Your task to perform on an android device: toggle pop-ups in chrome Image 0: 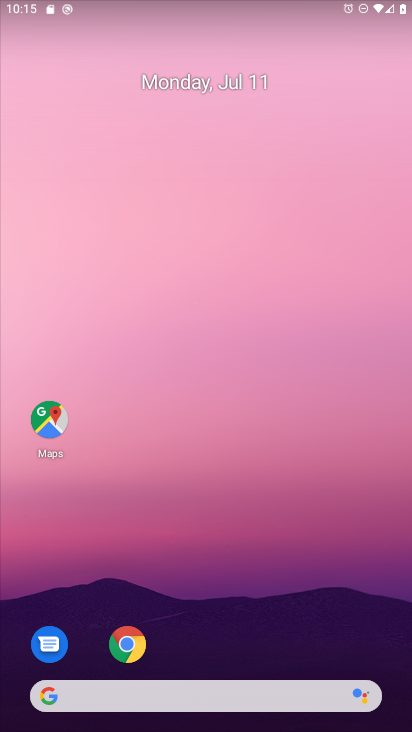
Step 0: click (127, 650)
Your task to perform on an android device: toggle pop-ups in chrome Image 1: 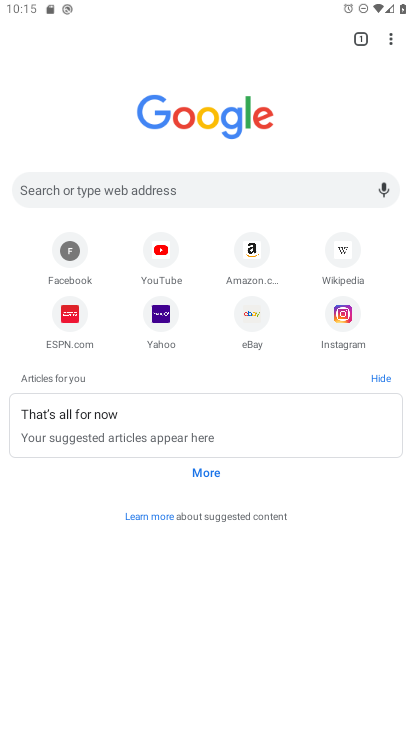
Step 1: click (388, 36)
Your task to perform on an android device: toggle pop-ups in chrome Image 2: 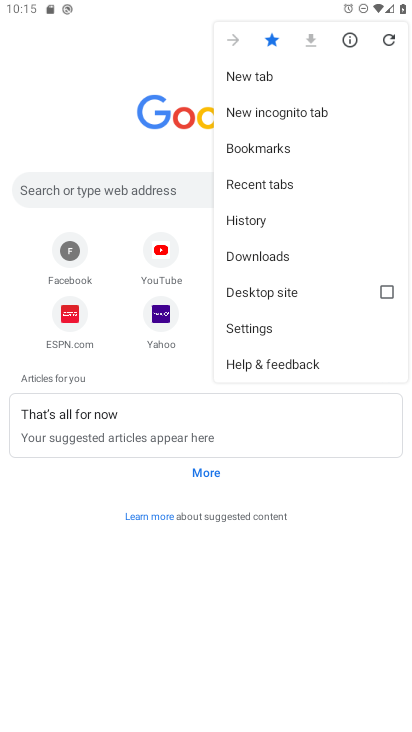
Step 2: click (274, 324)
Your task to perform on an android device: toggle pop-ups in chrome Image 3: 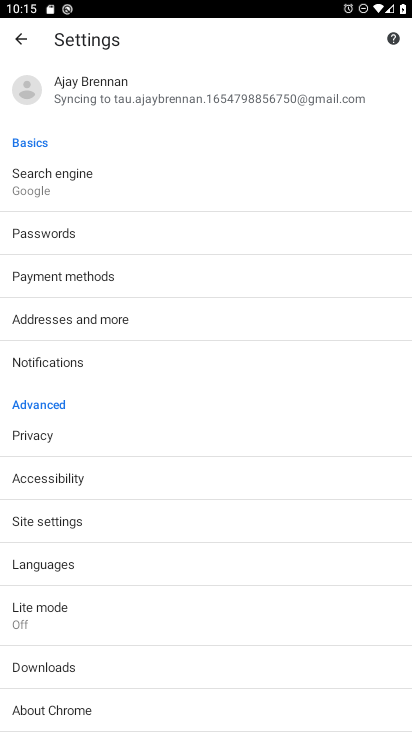
Step 3: drag from (112, 702) to (104, 351)
Your task to perform on an android device: toggle pop-ups in chrome Image 4: 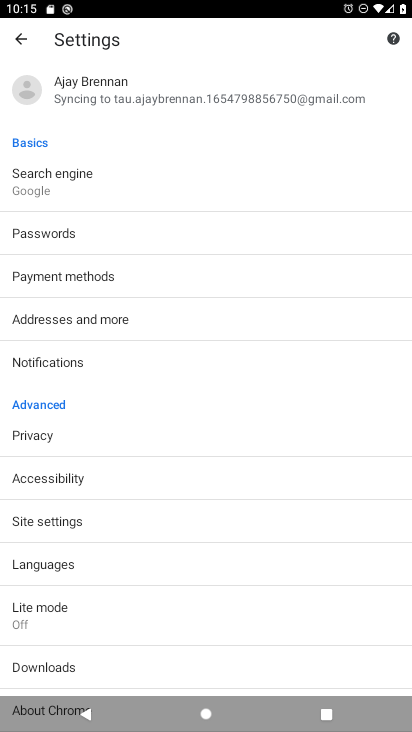
Step 4: drag from (100, 680) to (75, 365)
Your task to perform on an android device: toggle pop-ups in chrome Image 5: 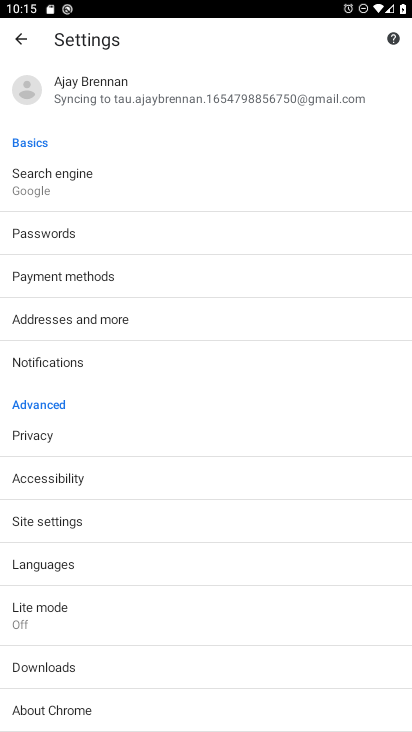
Step 5: click (48, 526)
Your task to perform on an android device: toggle pop-ups in chrome Image 6: 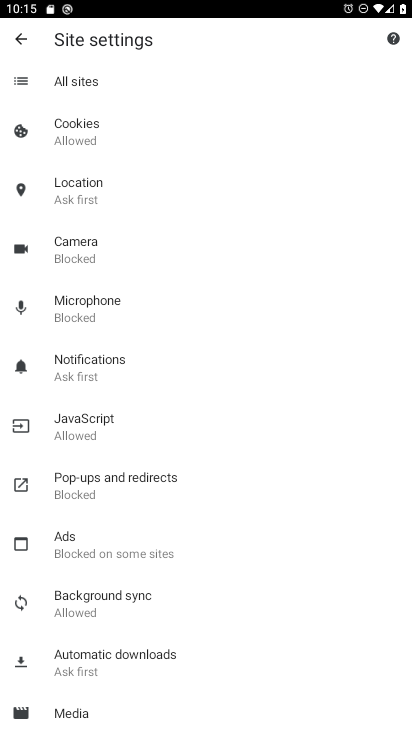
Step 6: click (97, 486)
Your task to perform on an android device: toggle pop-ups in chrome Image 7: 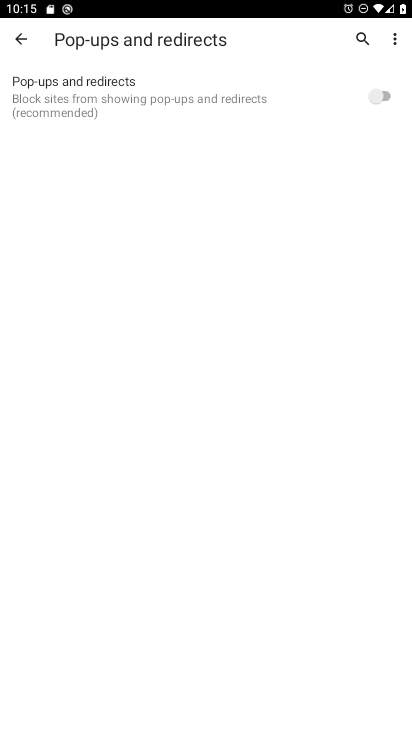
Step 7: click (382, 91)
Your task to perform on an android device: toggle pop-ups in chrome Image 8: 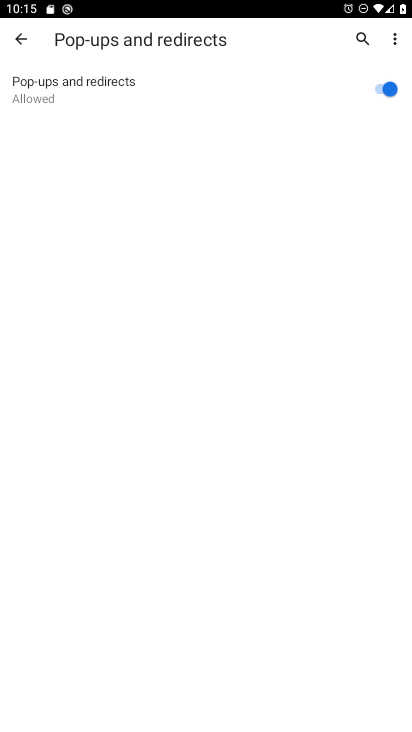
Step 8: task complete